Your task to perform on an android device: Is it going to rain this weekend? Image 0: 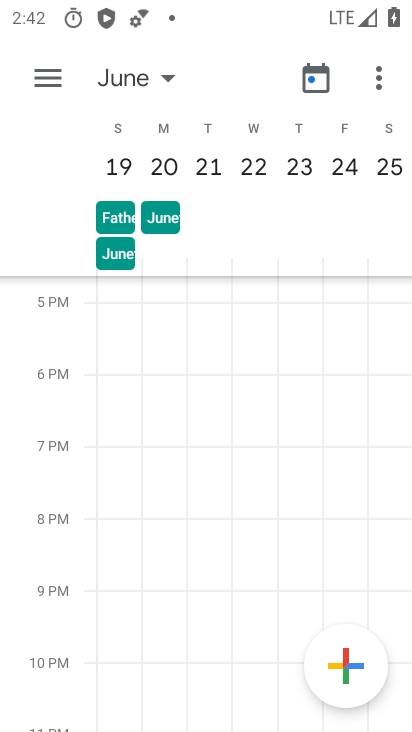
Step 0: press home button
Your task to perform on an android device: Is it going to rain this weekend? Image 1: 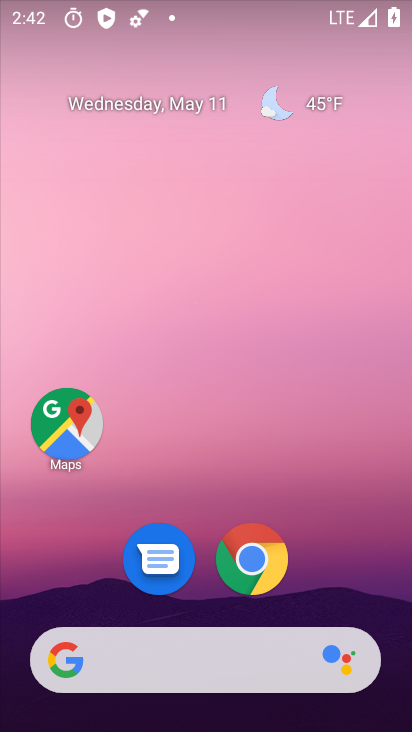
Step 1: click (315, 103)
Your task to perform on an android device: Is it going to rain this weekend? Image 2: 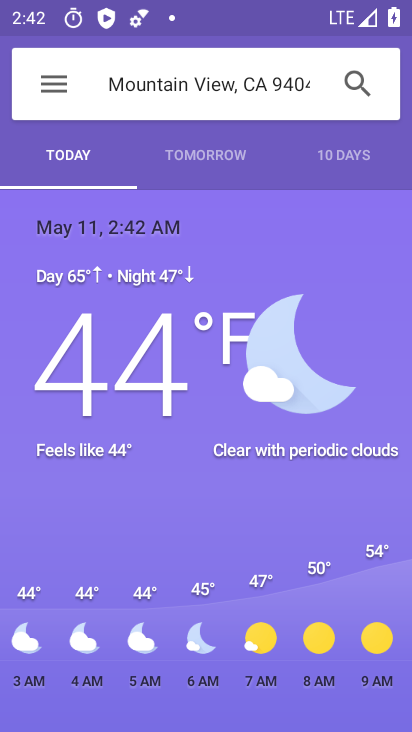
Step 2: click (341, 158)
Your task to perform on an android device: Is it going to rain this weekend? Image 3: 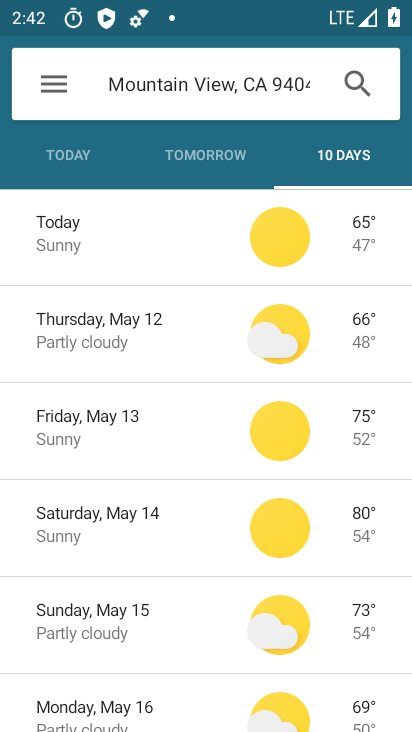
Step 3: task complete